Your task to perform on an android device: read, delete, or share a saved page in the chrome app Image 0: 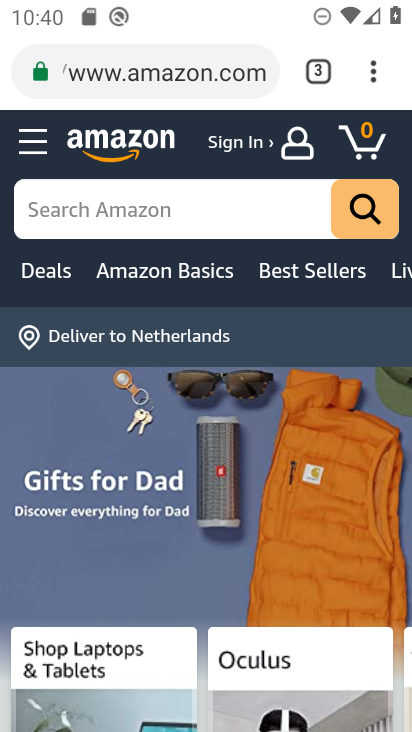
Step 0: press home button
Your task to perform on an android device: read, delete, or share a saved page in the chrome app Image 1: 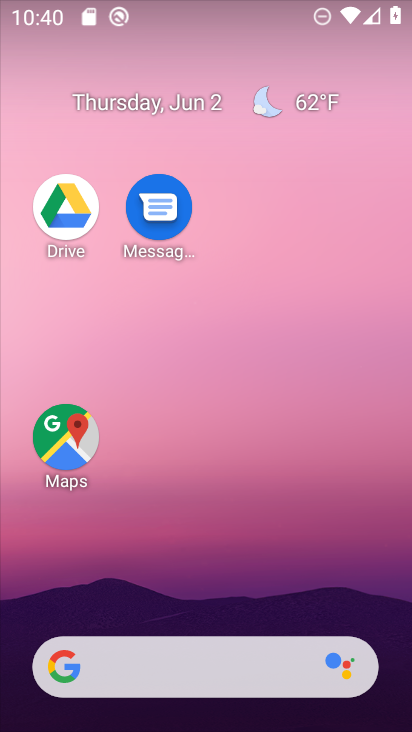
Step 1: drag from (239, 624) to (168, 6)
Your task to perform on an android device: read, delete, or share a saved page in the chrome app Image 2: 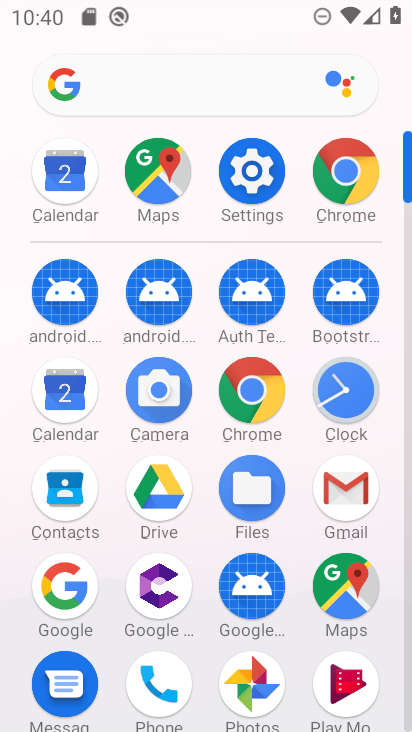
Step 2: click (250, 408)
Your task to perform on an android device: read, delete, or share a saved page in the chrome app Image 3: 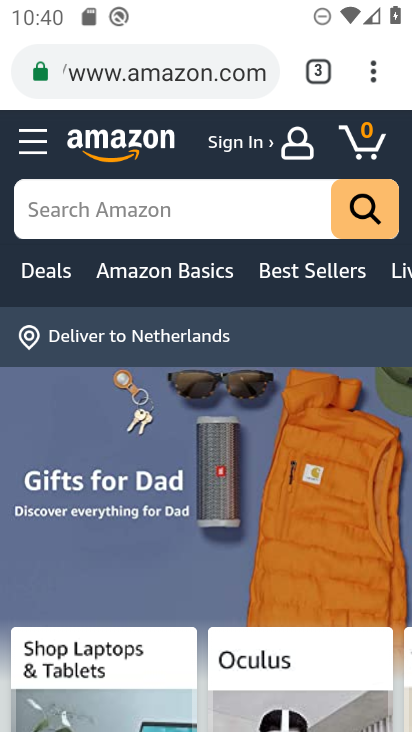
Step 3: task complete